Your task to perform on an android device: Go to settings Image 0: 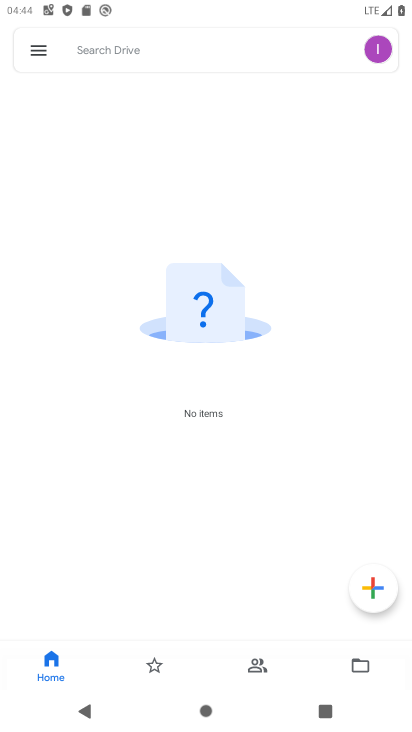
Step 0: press home button
Your task to perform on an android device: Go to settings Image 1: 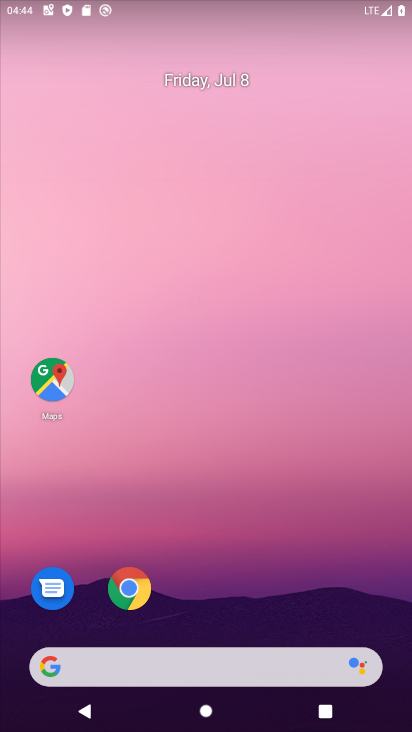
Step 1: drag from (185, 503) to (159, 34)
Your task to perform on an android device: Go to settings Image 2: 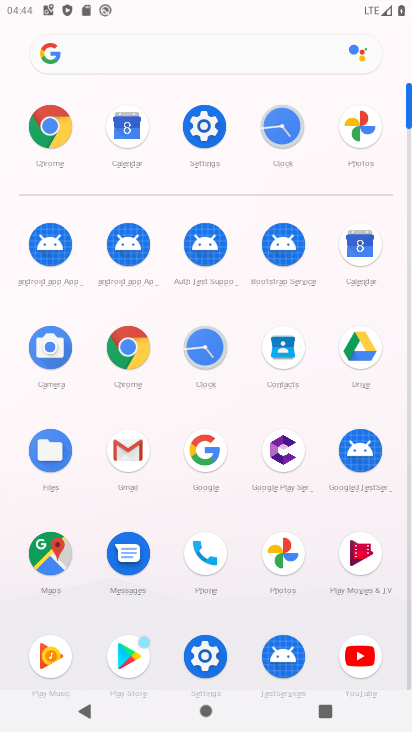
Step 2: click (211, 125)
Your task to perform on an android device: Go to settings Image 3: 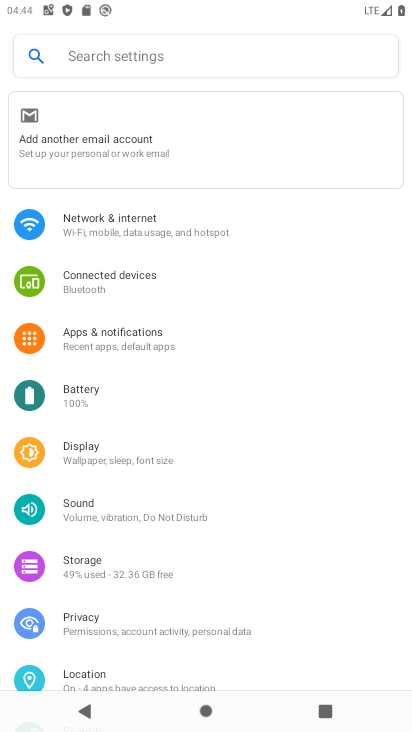
Step 3: task complete